Your task to perform on an android device: Go to location settings Image 0: 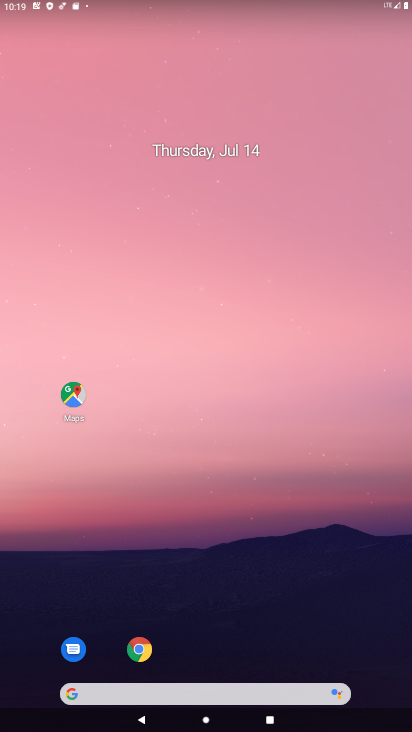
Step 0: drag from (220, 629) to (293, 1)
Your task to perform on an android device: Go to location settings Image 1: 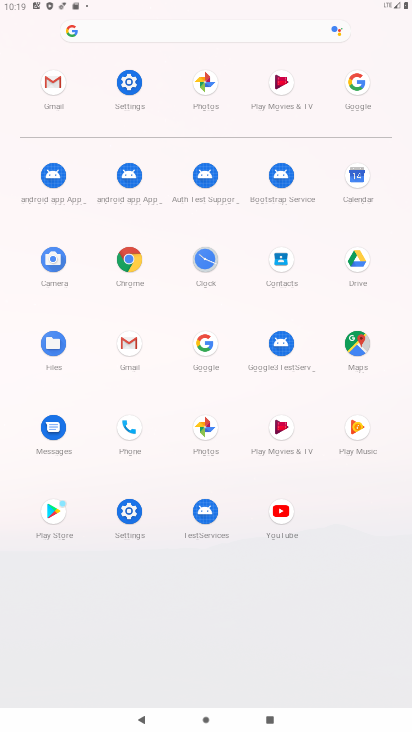
Step 1: click (121, 82)
Your task to perform on an android device: Go to location settings Image 2: 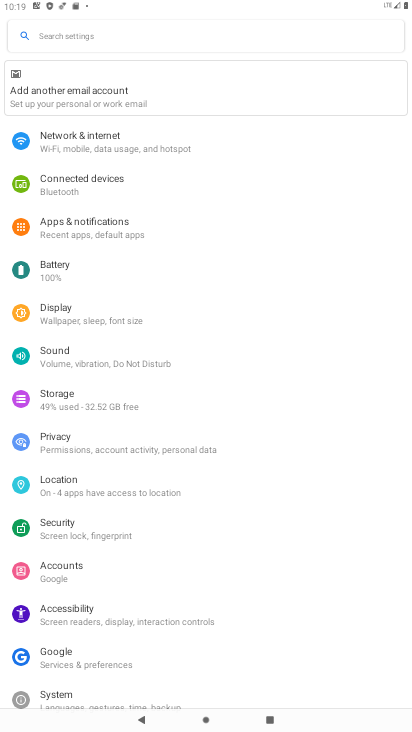
Step 2: click (94, 494)
Your task to perform on an android device: Go to location settings Image 3: 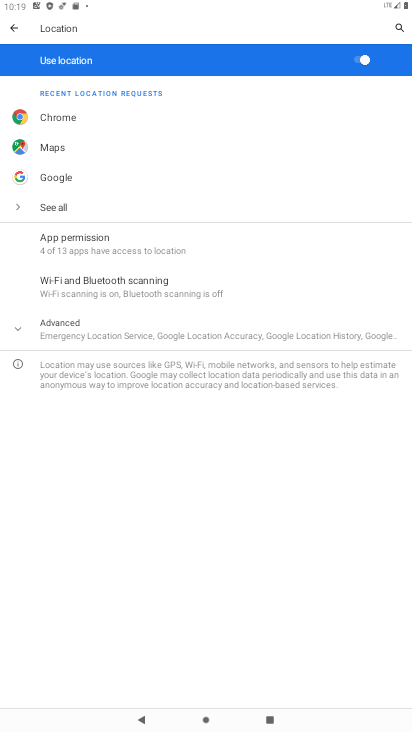
Step 3: task complete